Your task to perform on an android device: turn on improve location accuracy Image 0: 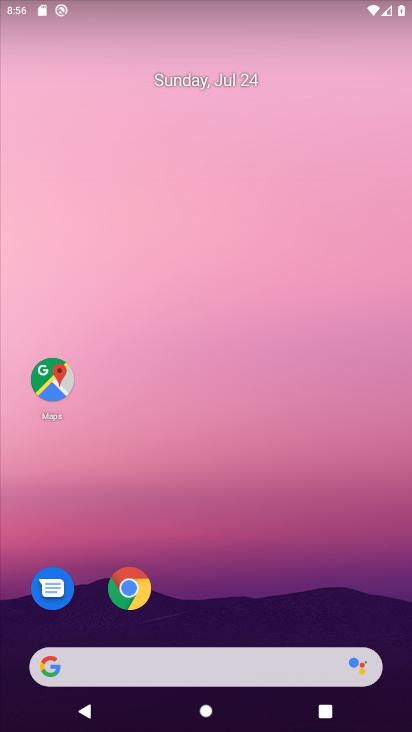
Step 0: drag from (394, 679) to (319, 143)
Your task to perform on an android device: turn on improve location accuracy Image 1: 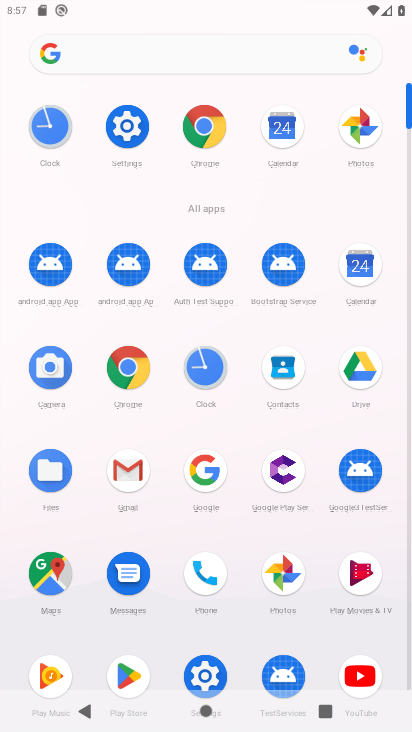
Step 1: click (205, 662)
Your task to perform on an android device: turn on improve location accuracy Image 2: 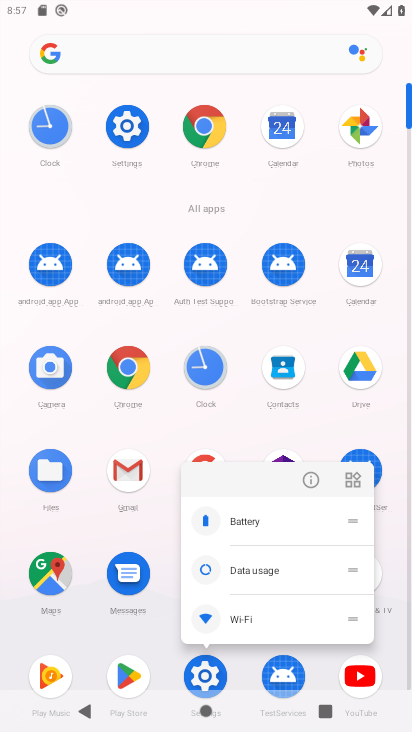
Step 2: click (202, 672)
Your task to perform on an android device: turn on improve location accuracy Image 3: 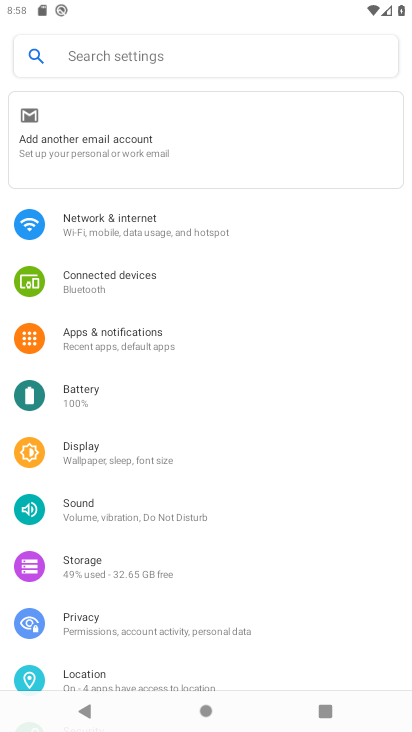
Step 3: click (72, 670)
Your task to perform on an android device: turn on improve location accuracy Image 4: 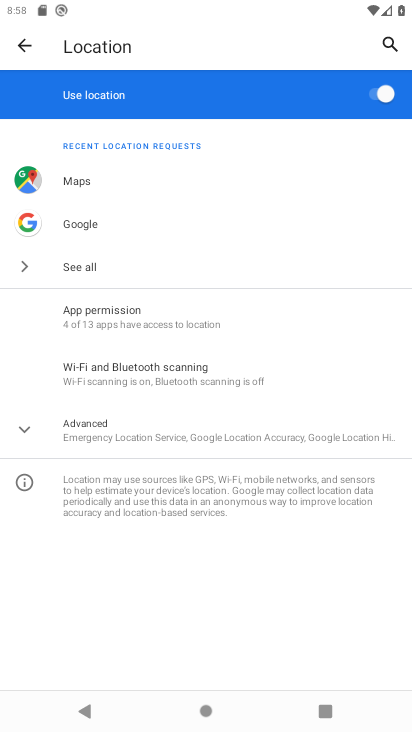
Step 4: click (17, 428)
Your task to perform on an android device: turn on improve location accuracy Image 5: 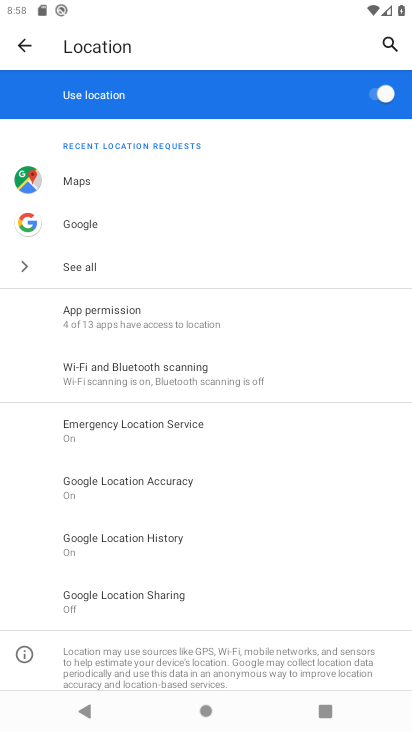
Step 5: click (112, 495)
Your task to perform on an android device: turn on improve location accuracy Image 6: 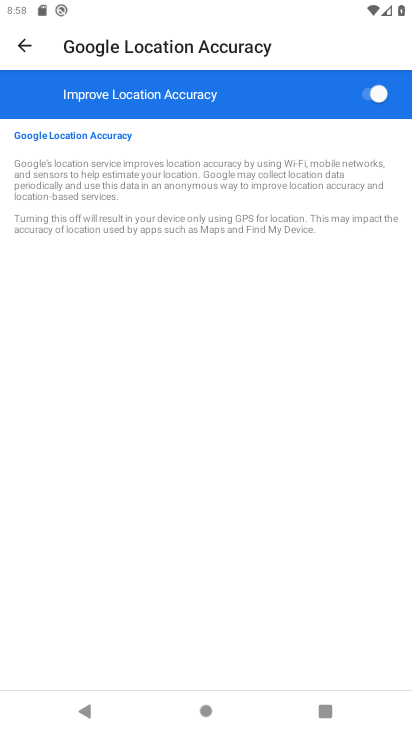
Step 6: task complete